Your task to perform on an android device: Open the web browser Image 0: 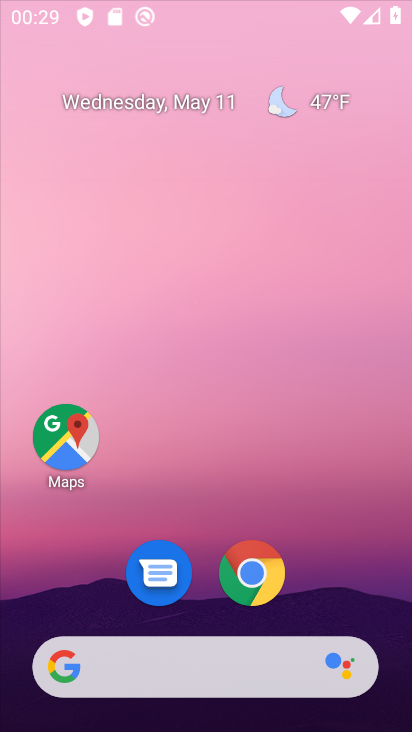
Step 0: press home button
Your task to perform on an android device: Open the web browser Image 1: 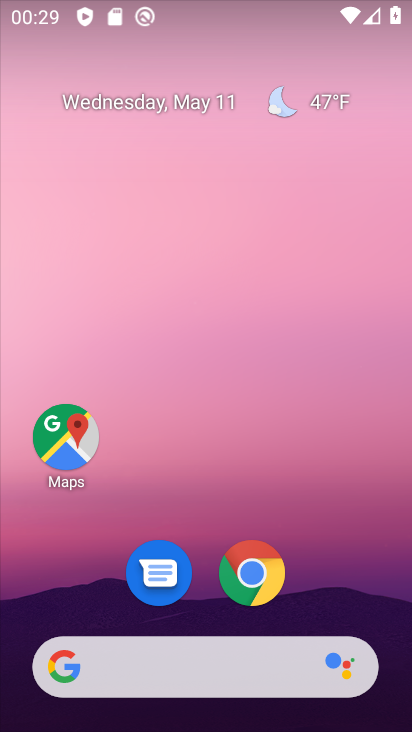
Step 1: drag from (207, 725) to (379, 731)
Your task to perform on an android device: Open the web browser Image 2: 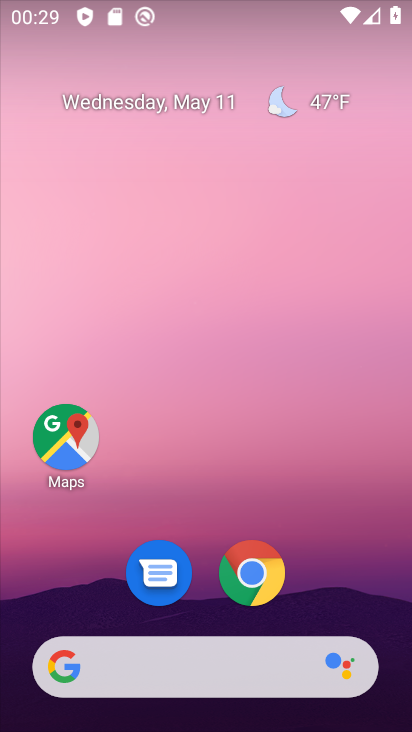
Step 2: click (262, 545)
Your task to perform on an android device: Open the web browser Image 3: 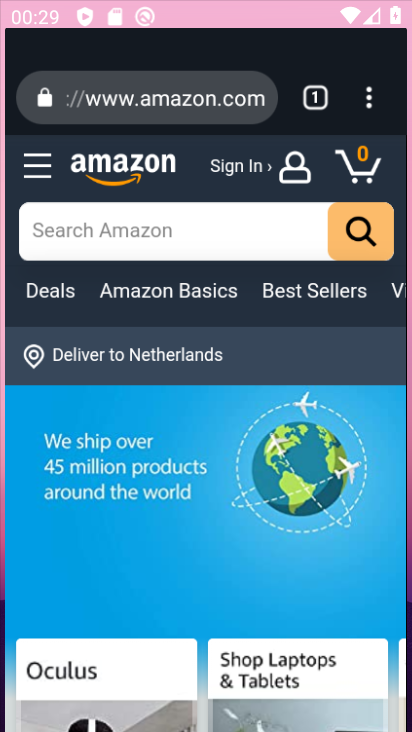
Step 3: click (262, 545)
Your task to perform on an android device: Open the web browser Image 4: 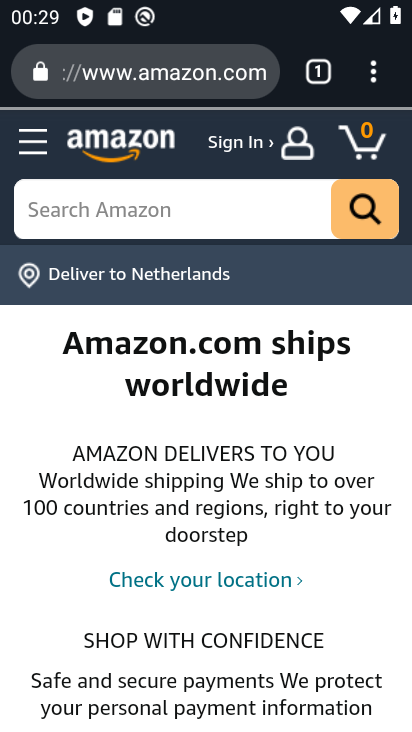
Step 4: click (158, 73)
Your task to perform on an android device: Open the web browser Image 5: 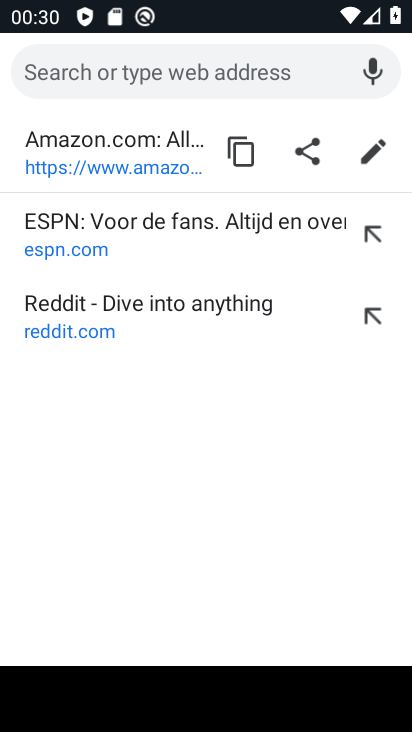
Step 5: type "web browser"
Your task to perform on an android device: Open the web browser Image 6: 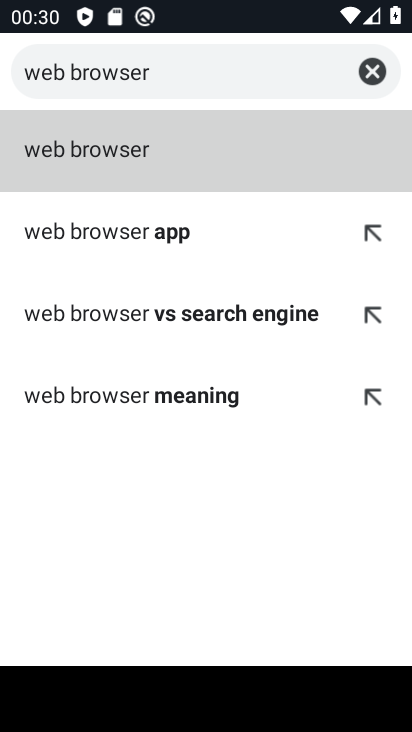
Step 6: click (169, 155)
Your task to perform on an android device: Open the web browser Image 7: 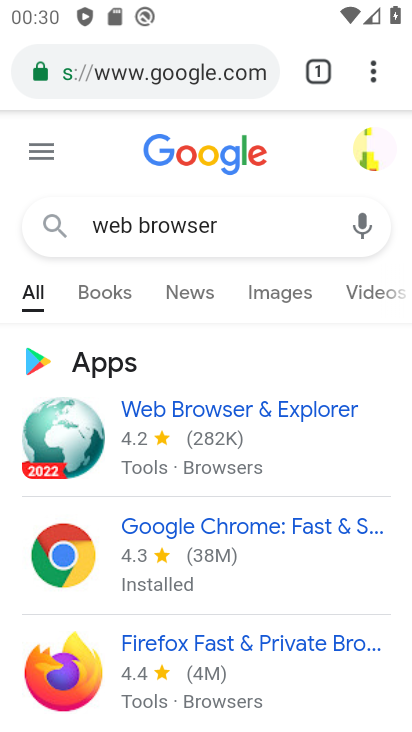
Step 7: task complete